Your task to perform on an android device: What's on my calendar tomorrow? Image 0: 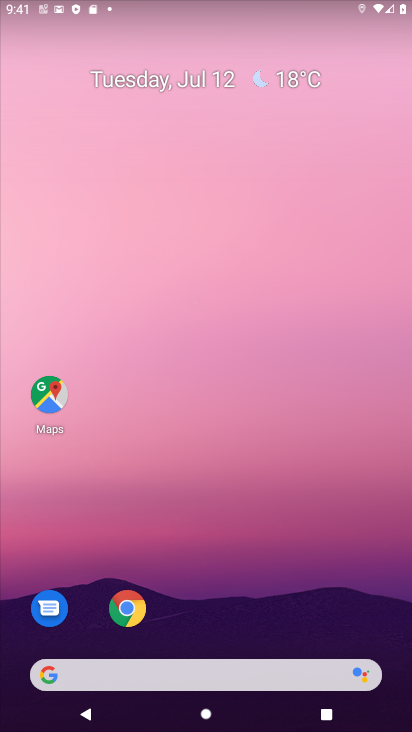
Step 0: drag from (273, 594) to (244, 22)
Your task to perform on an android device: What's on my calendar tomorrow? Image 1: 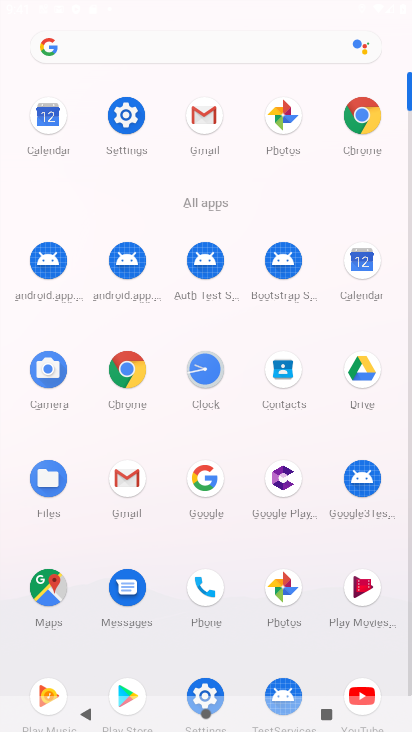
Step 1: click (354, 256)
Your task to perform on an android device: What's on my calendar tomorrow? Image 2: 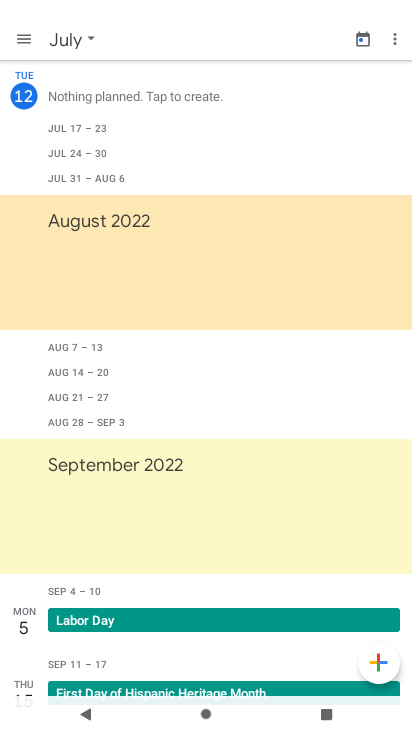
Step 2: click (24, 40)
Your task to perform on an android device: What's on my calendar tomorrow? Image 3: 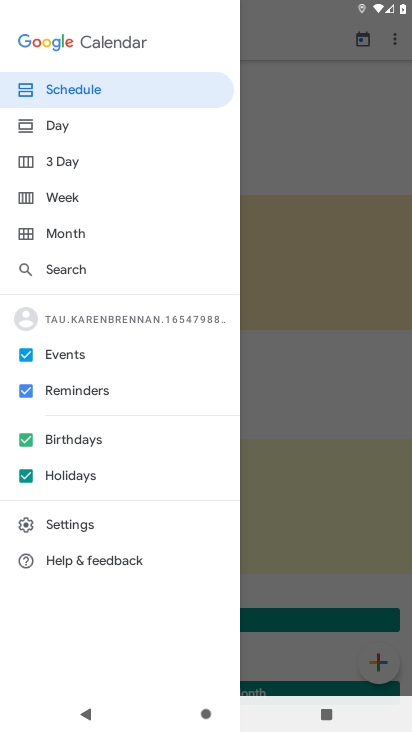
Step 3: click (54, 117)
Your task to perform on an android device: What's on my calendar tomorrow? Image 4: 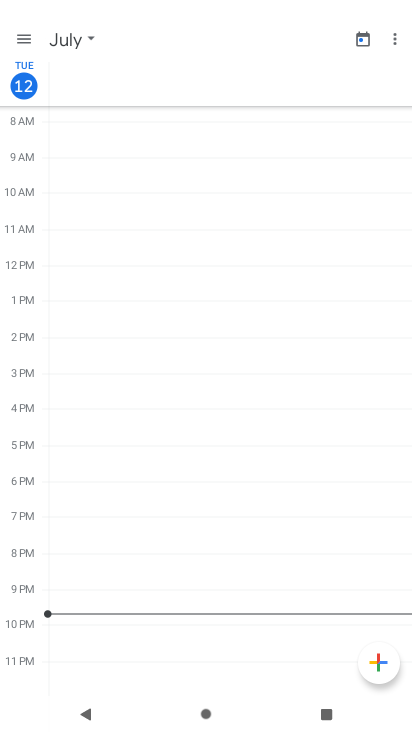
Step 4: click (91, 34)
Your task to perform on an android device: What's on my calendar tomorrow? Image 5: 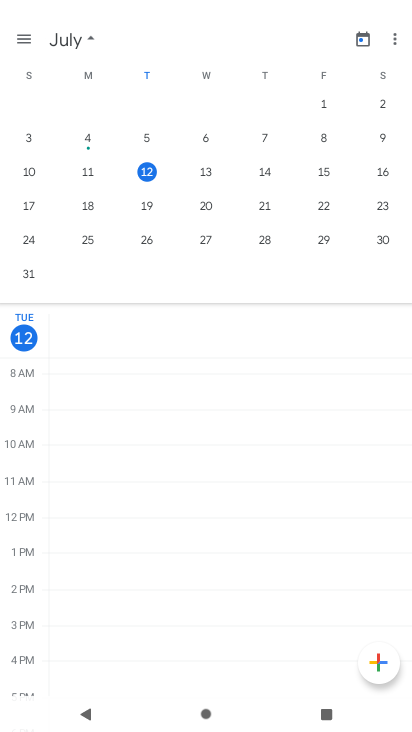
Step 5: click (210, 179)
Your task to perform on an android device: What's on my calendar tomorrow? Image 6: 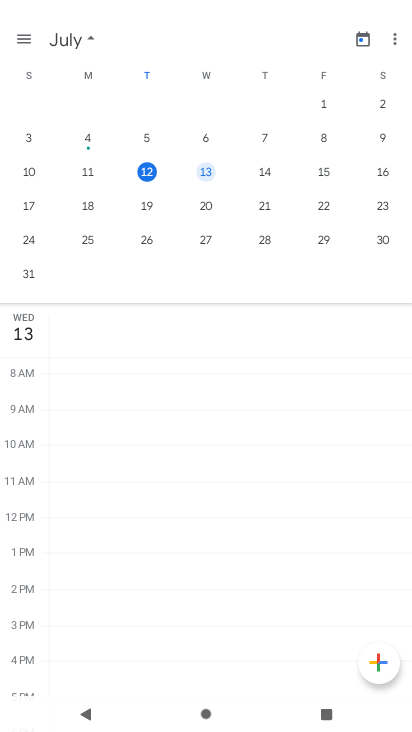
Step 6: task complete